Your task to perform on an android device: open app "HBO Max: Stream TV & Movies" (install if not already installed) Image 0: 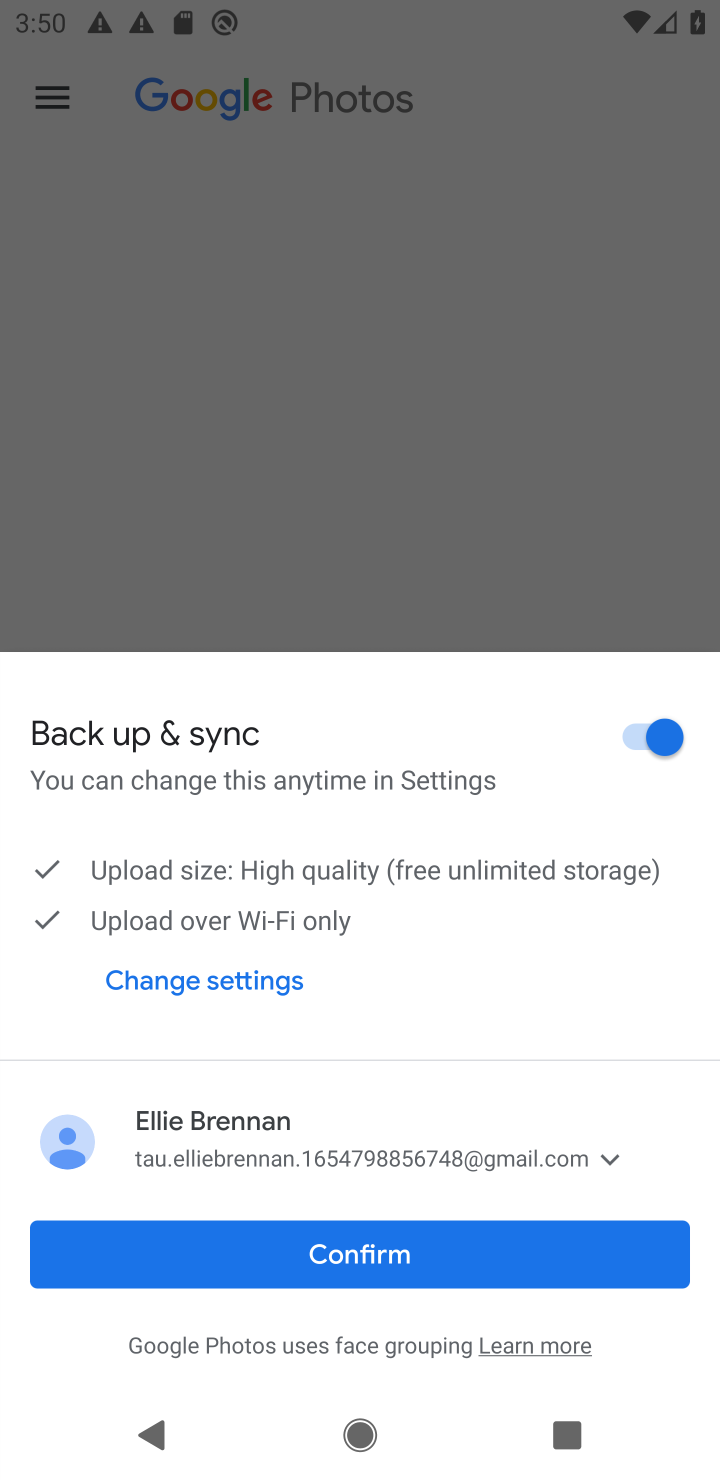
Step 0: press home button
Your task to perform on an android device: open app "HBO Max: Stream TV & Movies" (install if not already installed) Image 1: 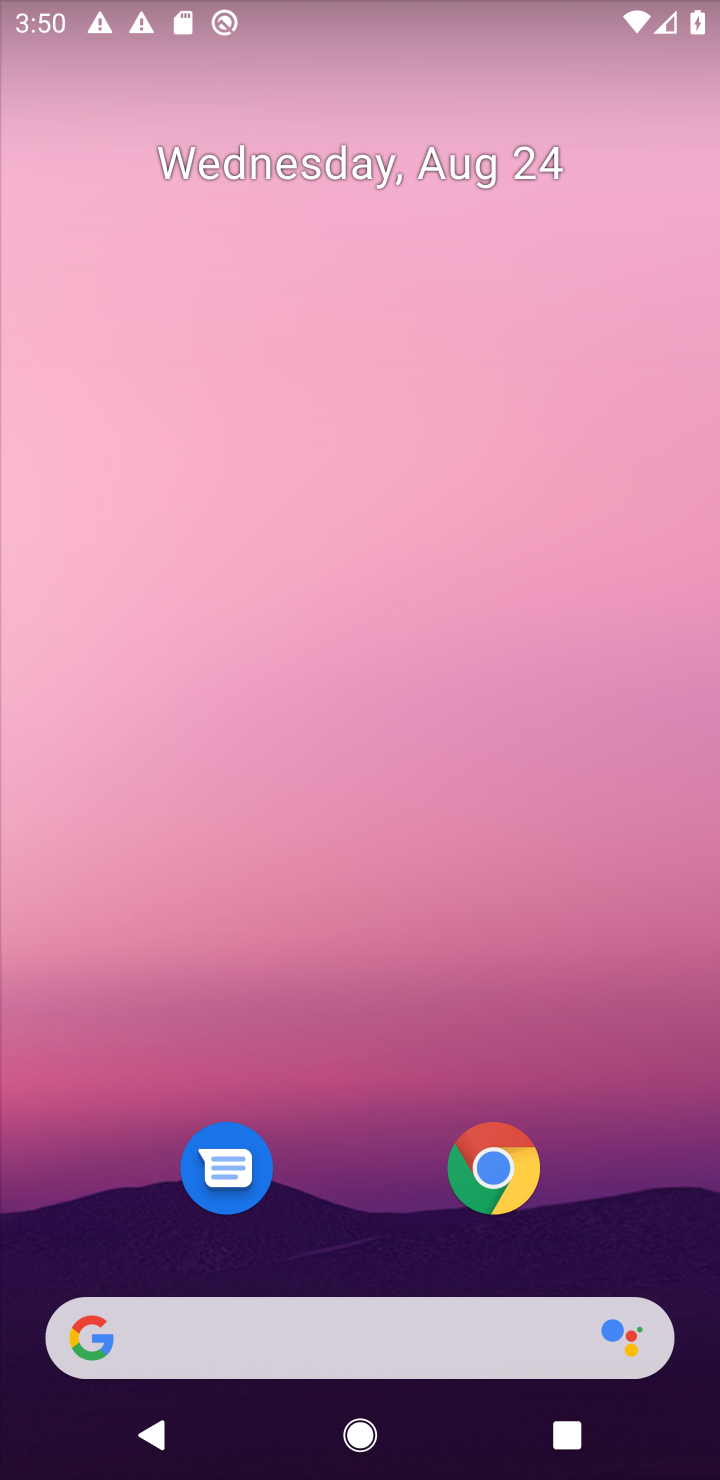
Step 1: drag from (673, 1233) to (575, 101)
Your task to perform on an android device: open app "HBO Max: Stream TV & Movies" (install if not already installed) Image 2: 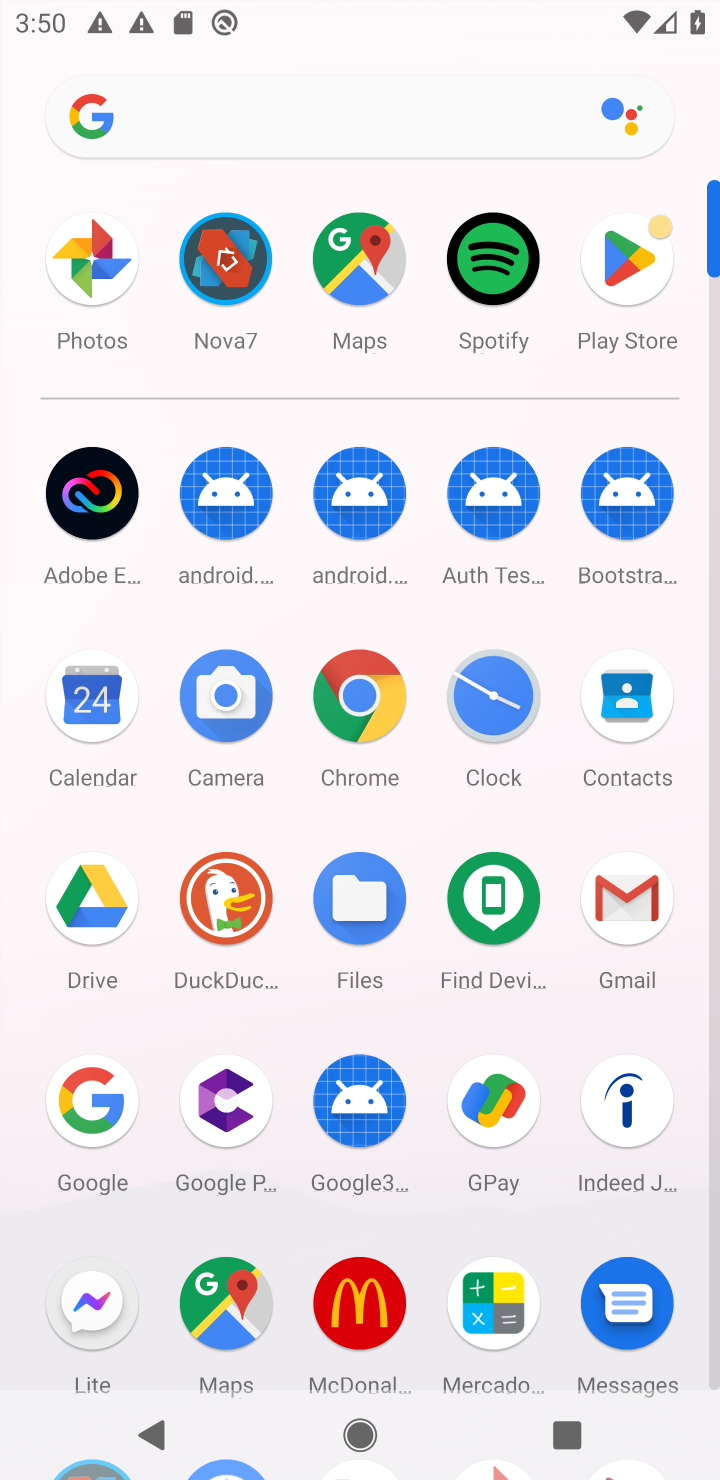
Step 2: click (714, 1334)
Your task to perform on an android device: open app "HBO Max: Stream TV & Movies" (install if not already installed) Image 3: 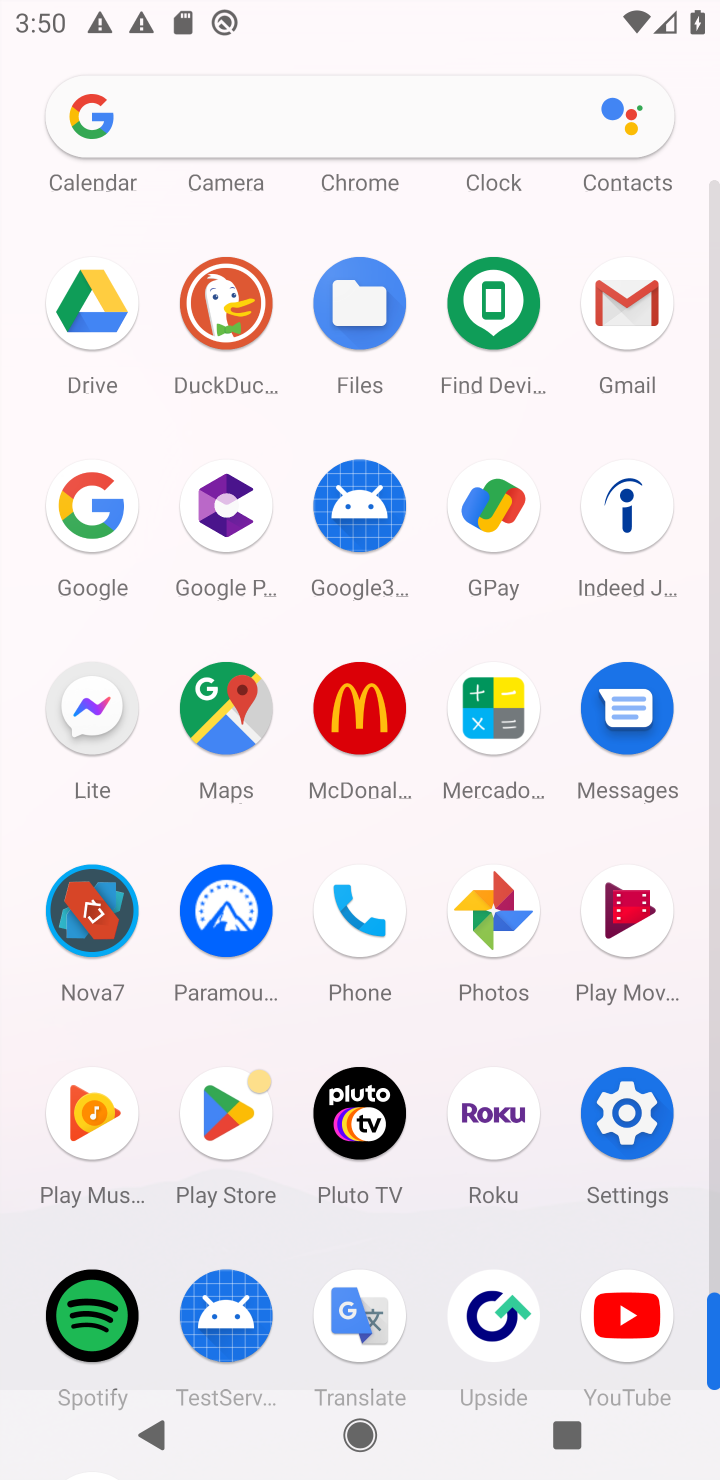
Step 3: click (223, 1110)
Your task to perform on an android device: open app "HBO Max: Stream TV & Movies" (install if not already installed) Image 4: 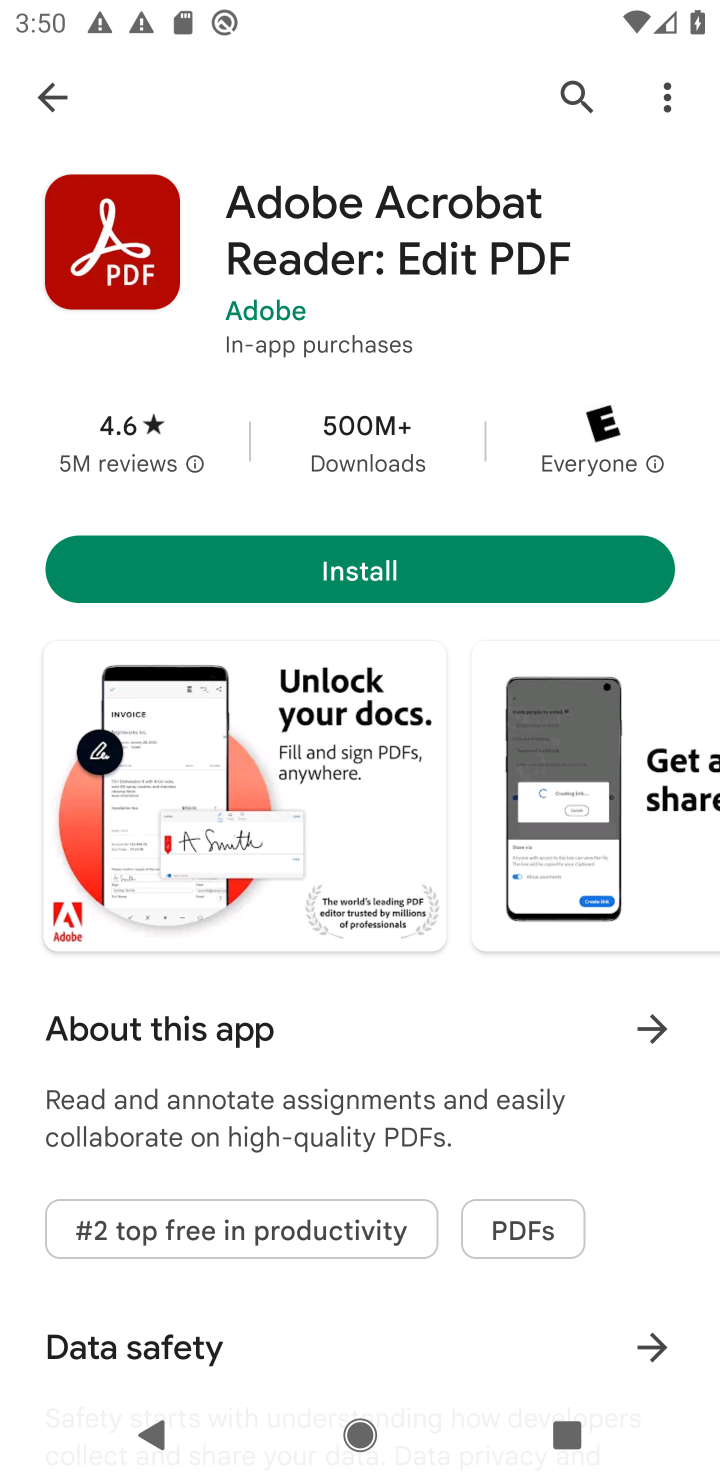
Step 4: click (563, 95)
Your task to perform on an android device: open app "HBO Max: Stream TV & Movies" (install if not already installed) Image 5: 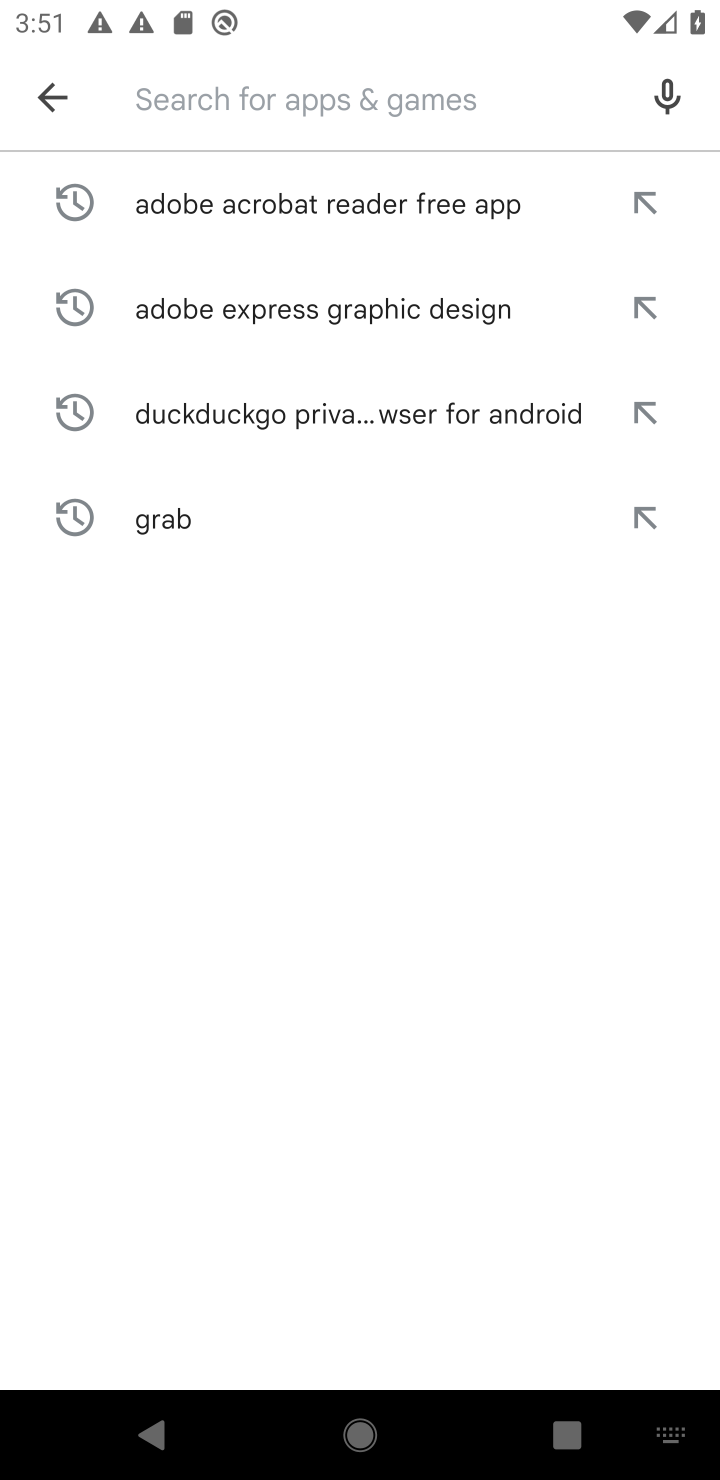
Step 5: type "HBO Max: Stream TV & Movies"
Your task to perform on an android device: open app "HBO Max: Stream TV & Movies" (install if not already installed) Image 6: 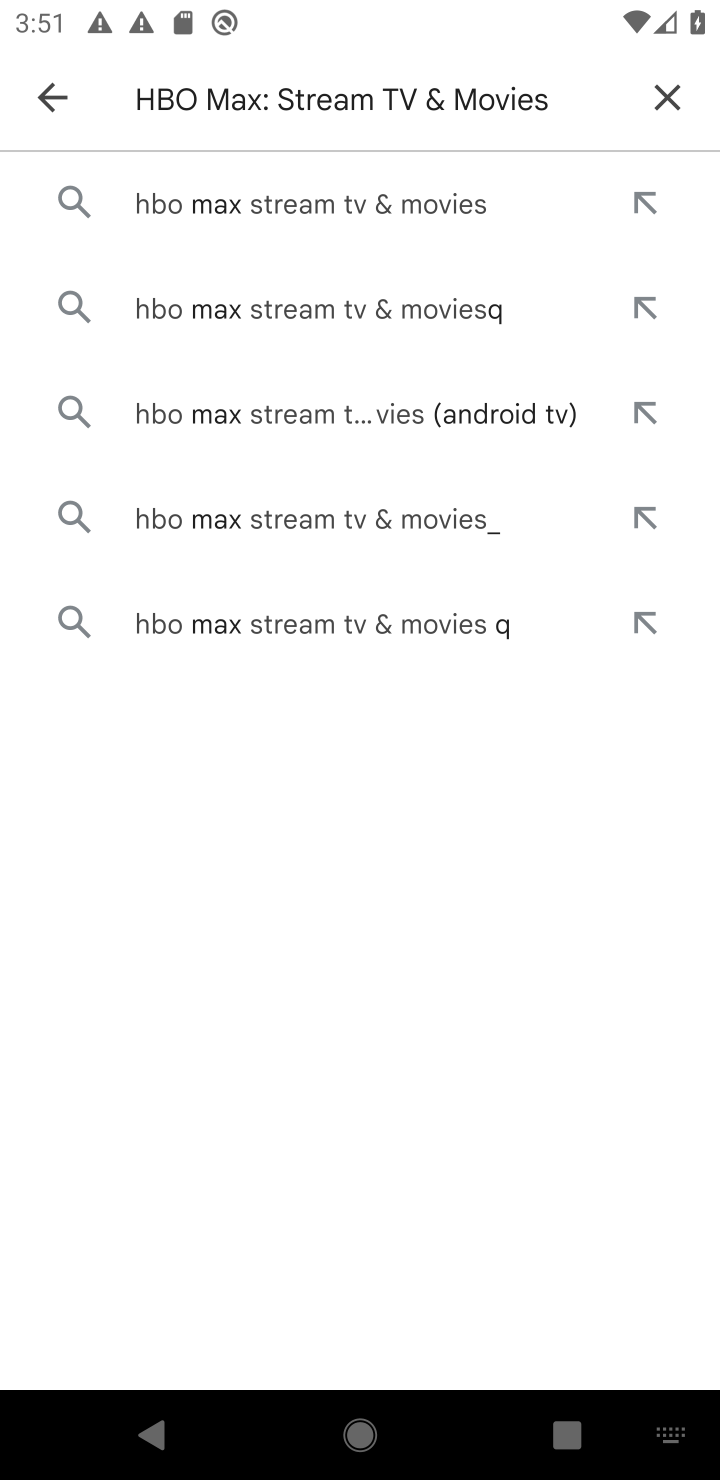
Step 6: click (224, 188)
Your task to perform on an android device: open app "HBO Max: Stream TV & Movies" (install if not already installed) Image 7: 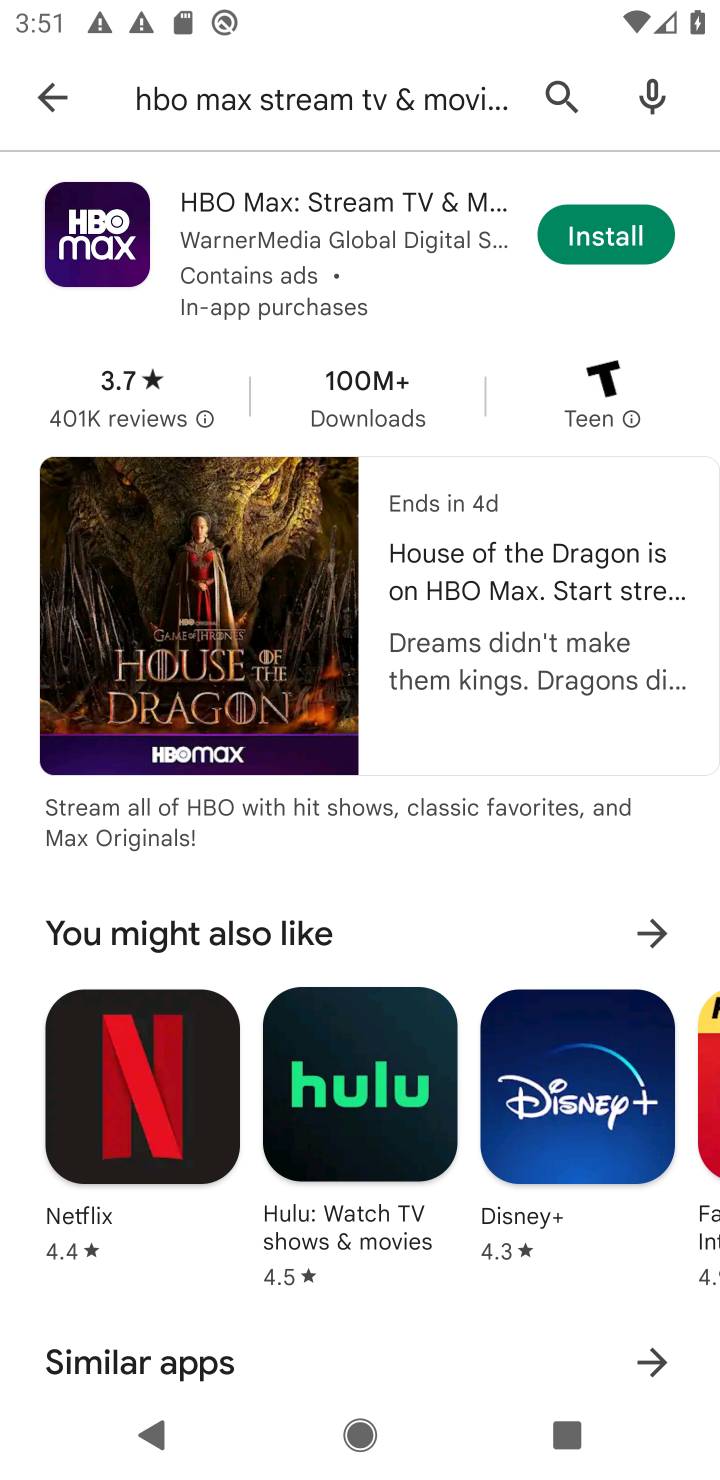
Step 7: click (205, 211)
Your task to perform on an android device: open app "HBO Max: Stream TV & Movies" (install if not already installed) Image 8: 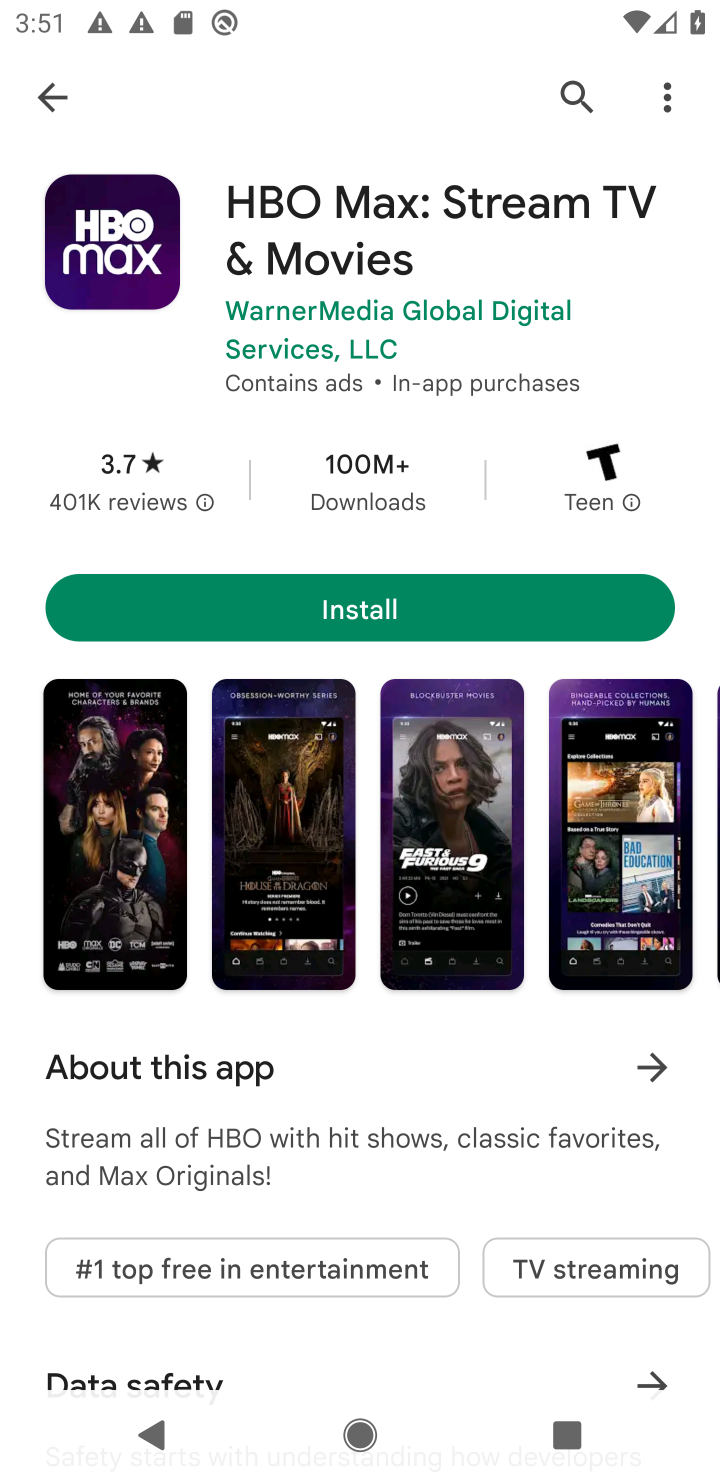
Step 8: click (376, 611)
Your task to perform on an android device: open app "HBO Max: Stream TV & Movies" (install if not already installed) Image 9: 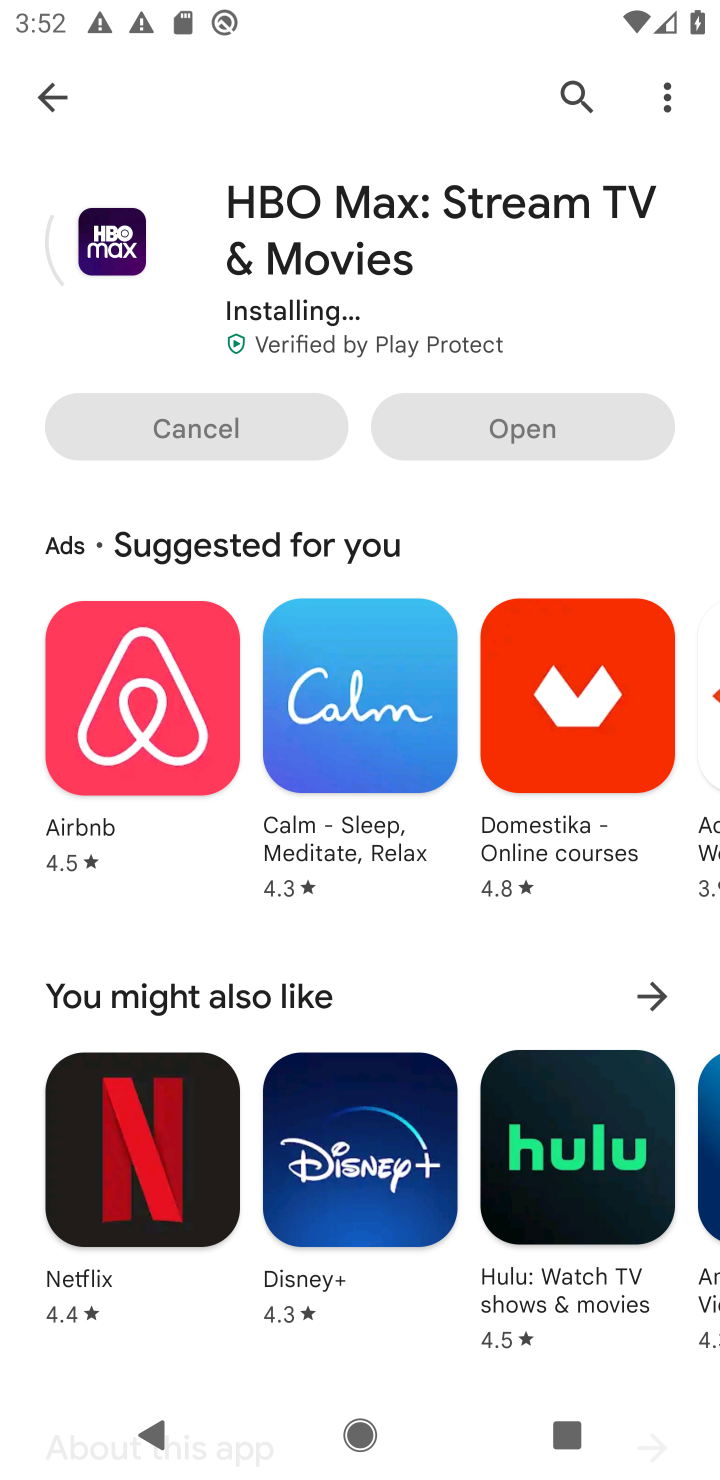
Step 9: press back button
Your task to perform on an android device: open app "HBO Max: Stream TV & Movies" (install if not already installed) Image 10: 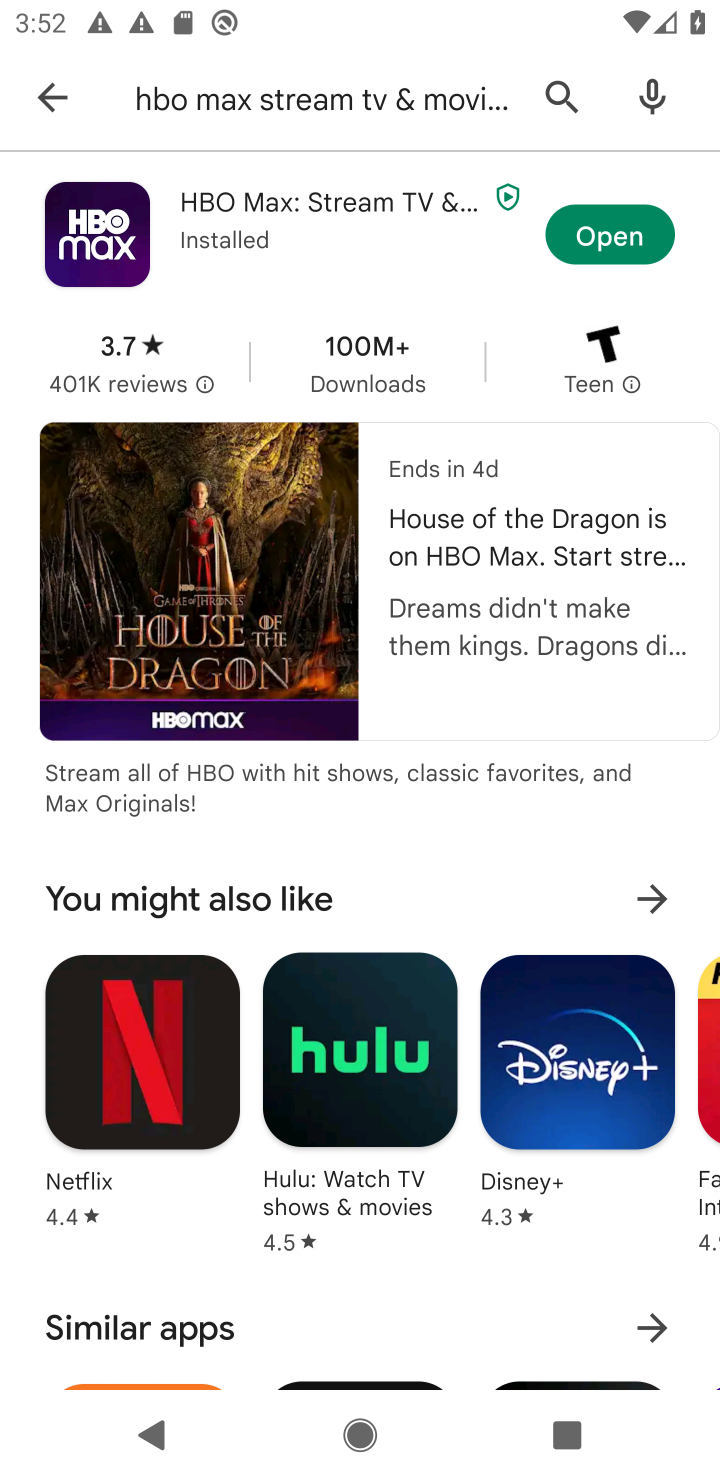
Step 10: click (196, 194)
Your task to perform on an android device: open app "HBO Max: Stream TV & Movies" (install if not already installed) Image 11: 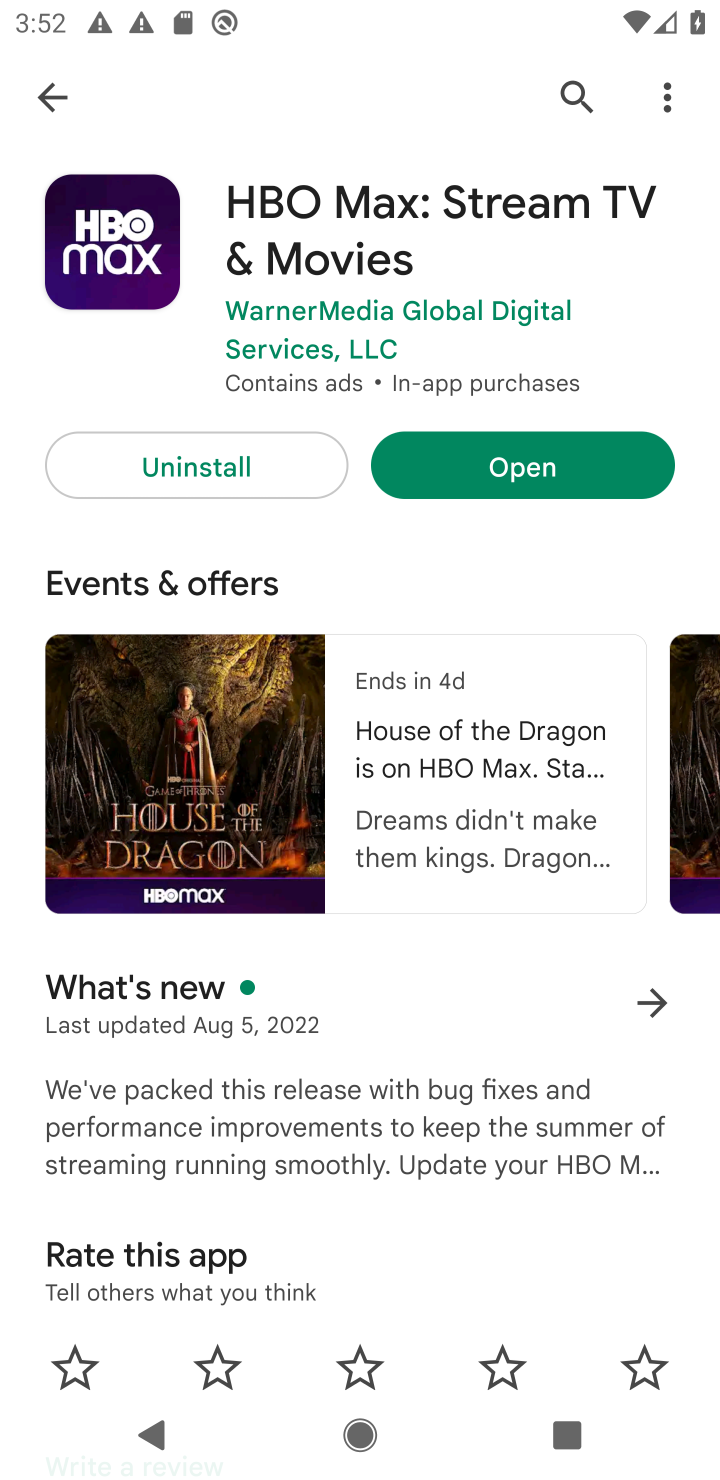
Step 11: click (521, 461)
Your task to perform on an android device: open app "HBO Max: Stream TV & Movies" (install if not already installed) Image 12: 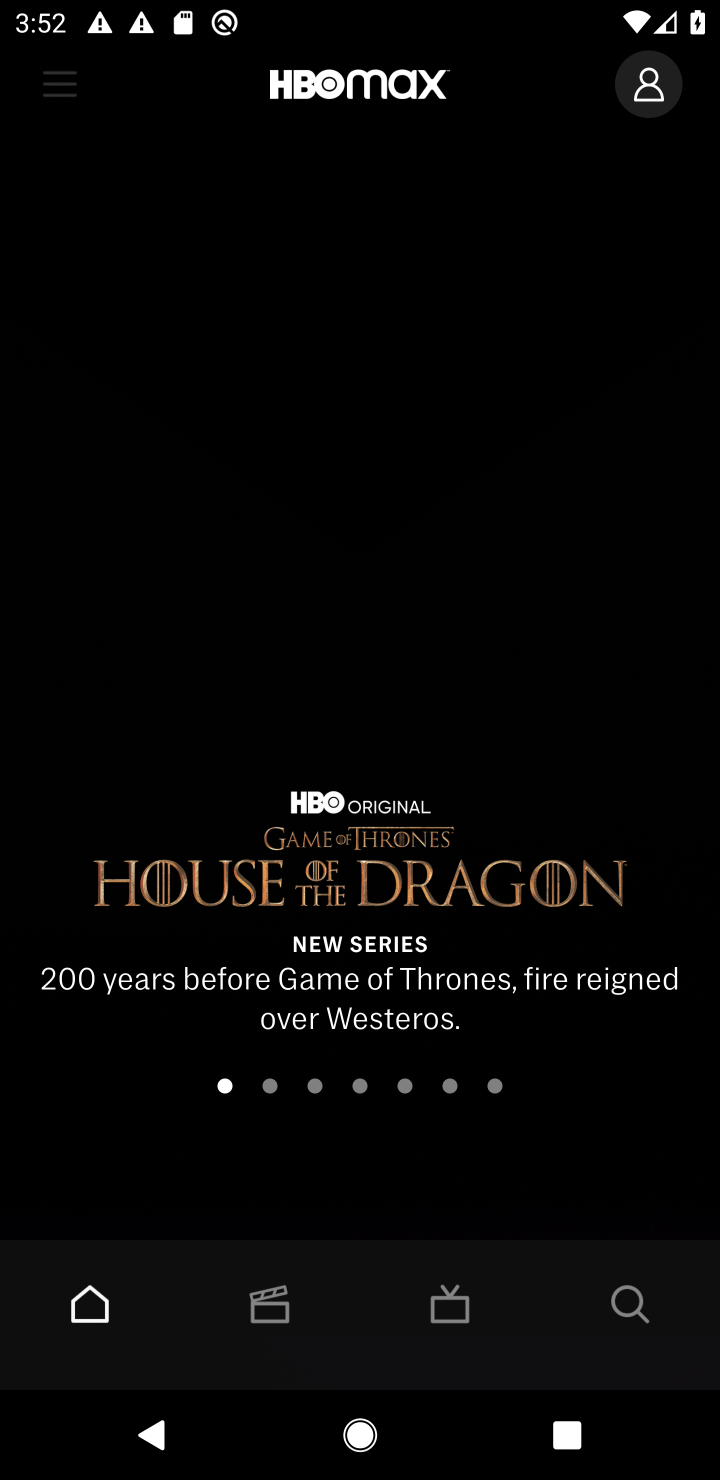
Step 12: task complete